Your task to perform on an android device: Open Google Maps Image 0: 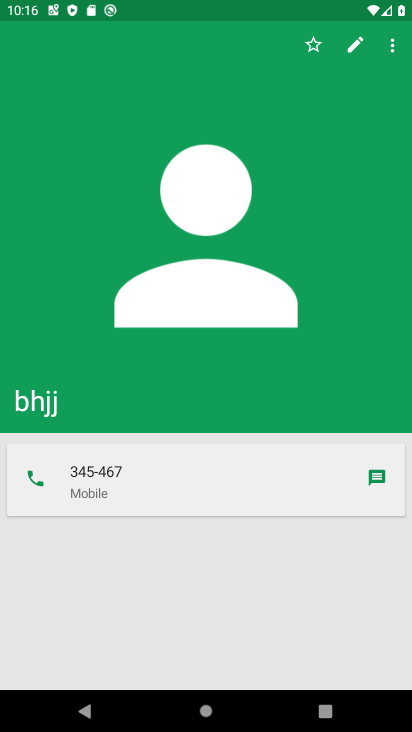
Step 0: press home button
Your task to perform on an android device: Open Google Maps Image 1: 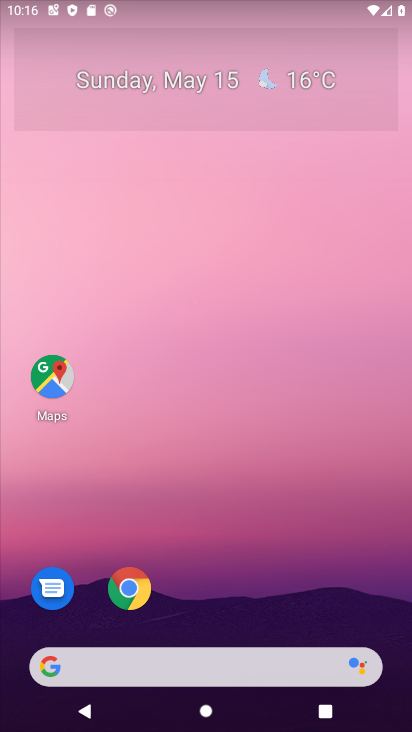
Step 1: click (36, 383)
Your task to perform on an android device: Open Google Maps Image 2: 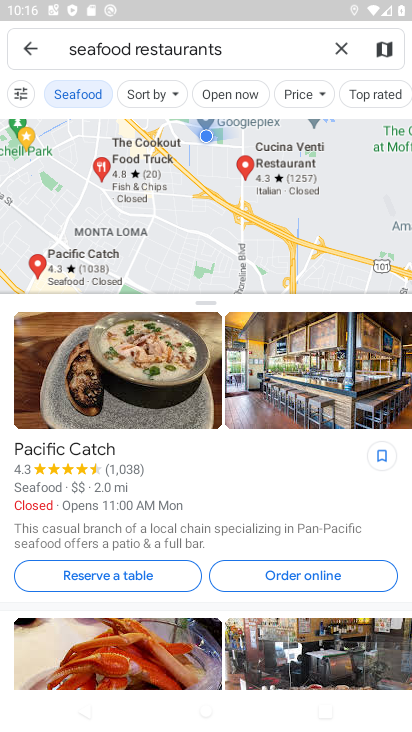
Step 2: task complete